Your task to perform on an android device: refresh tabs in the chrome app Image 0: 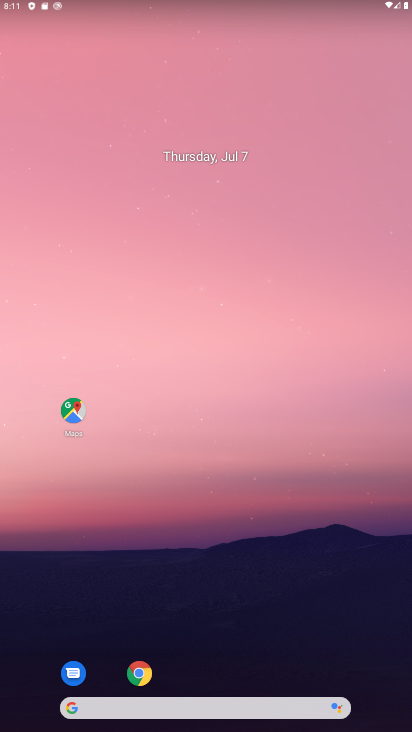
Step 0: drag from (227, 684) to (175, 137)
Your task to perform on an android device: refresh tabs in the chrome app Image 1: 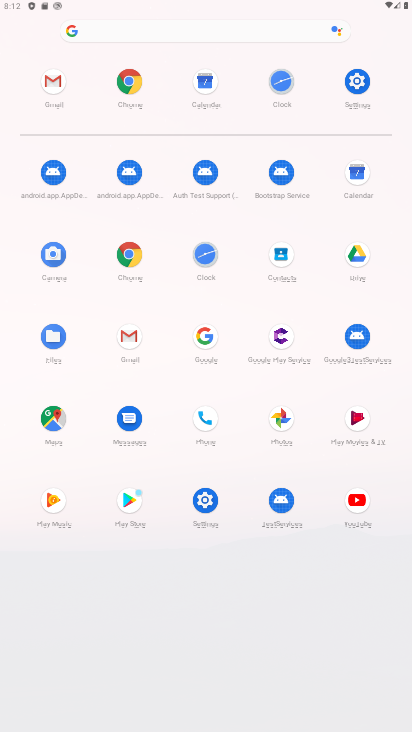
Step 1: click (121, 254)
Your task to perform on an android device: refresh tabs in the chrome app Image 2: 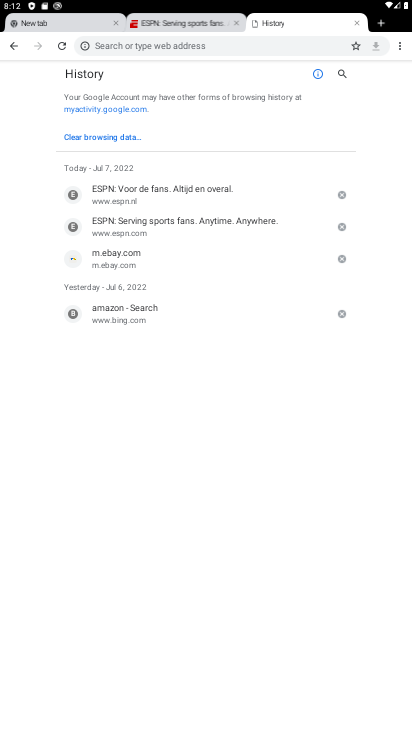
Step 2: click (397, 42)
Your task to perform on an android device: refresh tabs in the chrome app Image 3: 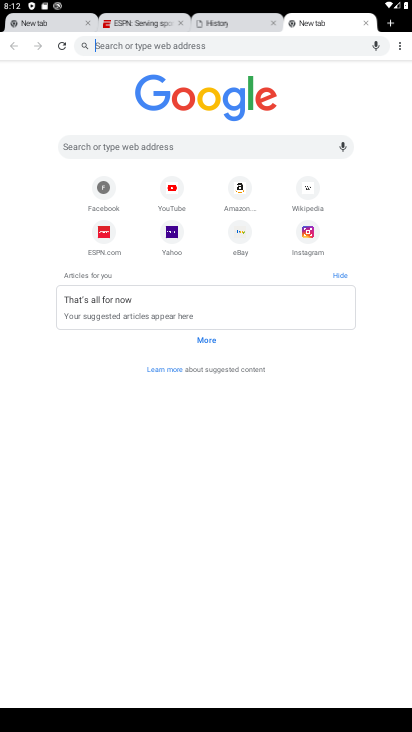
Step 3: drag from (398, 41) to (342, 314)
Your task to perform on an android device: refresh tabs in the chrome app Image 4: 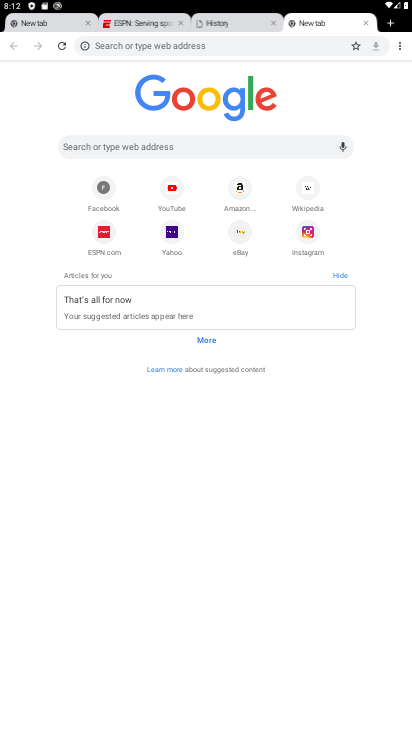
Step 4: click (296, 377)
Your task to perform on an android device: refresh tabs in the chrome app Image 5: 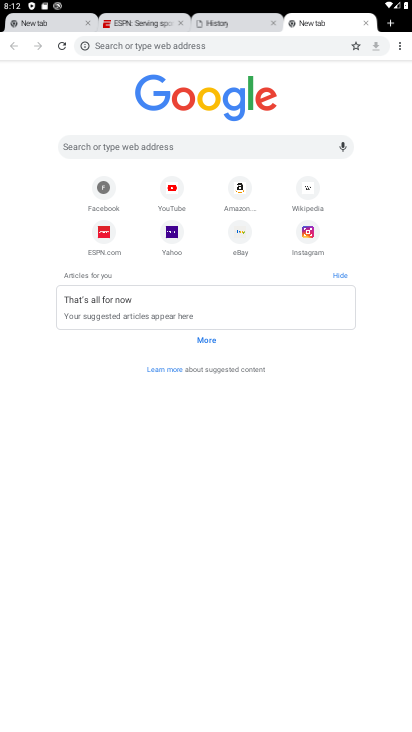
Step 5: click (62, 52)
Your task to perform on an android device: refresh tabs in the chrome app Image 6: 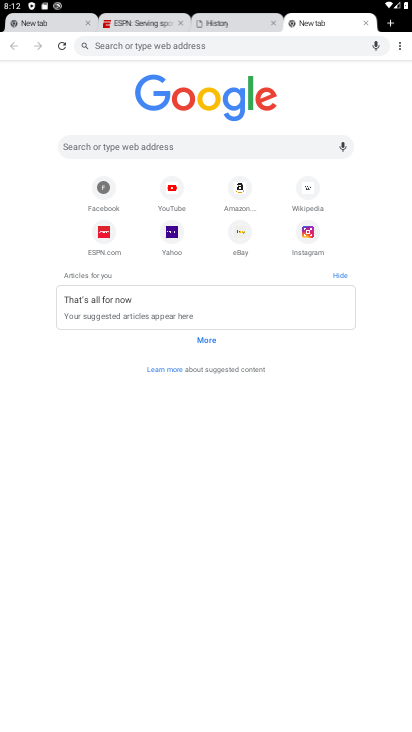
Step 6: task complete